Your task to perform on an android device: Play the last video I watched on Youtube Image 0: 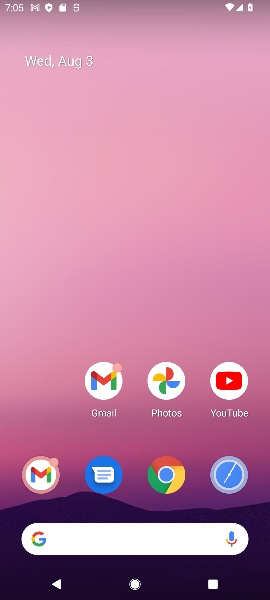
Step 0: drag from (50, 415) to (52, 350)
Your task to perform on an android device: Play the last video I watched on Youtube Image 1: 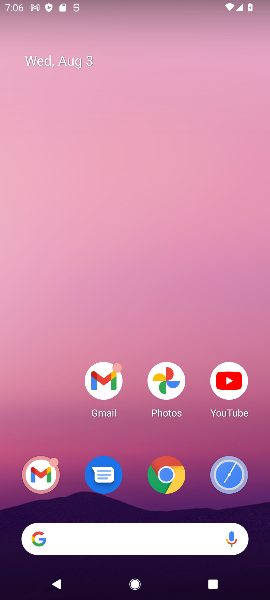
Step 1: click (222, 377)
Your task to perform on an android device: Play the last video I watched on Youtube Image 2: 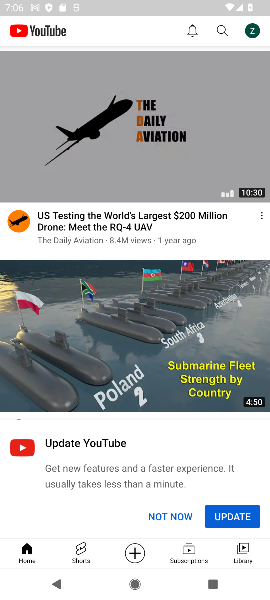
Step 2: click (247, 559)
Your task to perform on an android device: Play the last video I watched on Youtube Image 3: 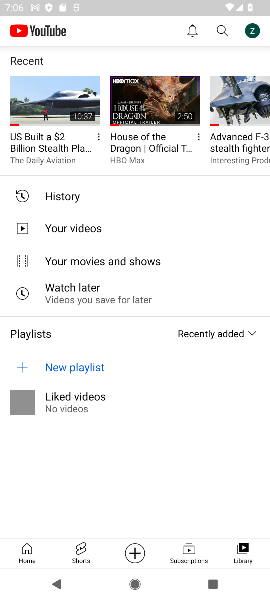
Step 3: click (62, 128)
Your task to perform on an android device: Play the last video I watched on Youtube Image 4: 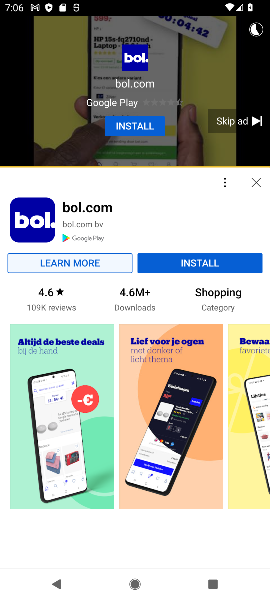
Step 4: task complete